Your task to perform on an android device: Go to sound settings Image 0: 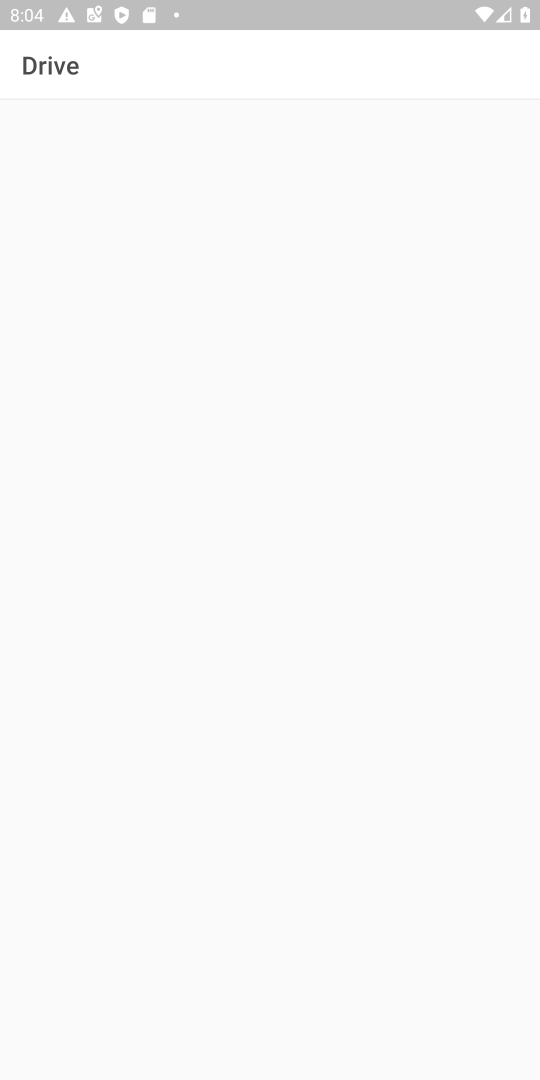
Step 0: press home button
Your task to perform on an android device: Go to sound settings Image 1: 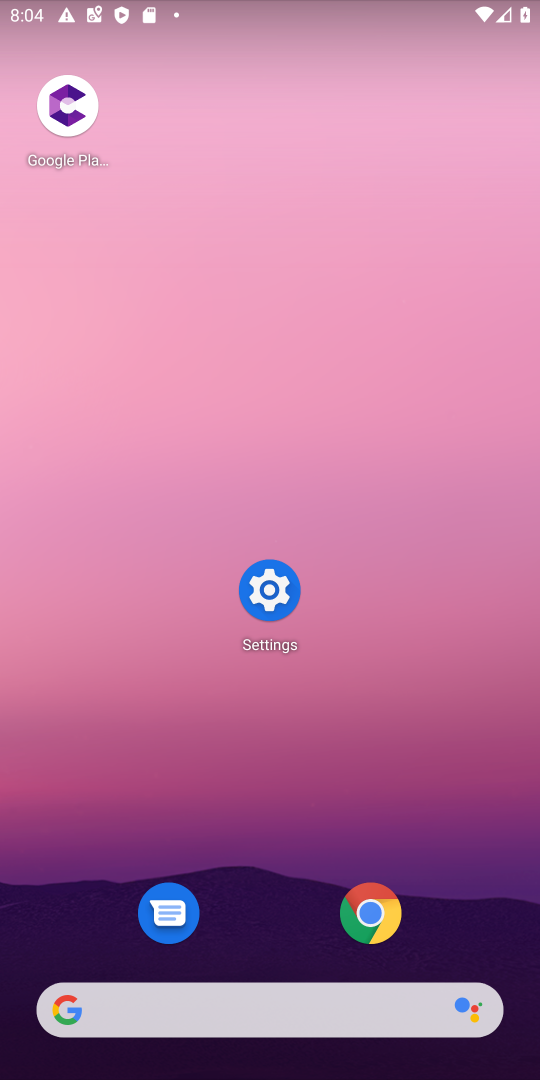
Step 1: click (270, 591)
Your task to perform on an android device: Go to sound settings Image 2: 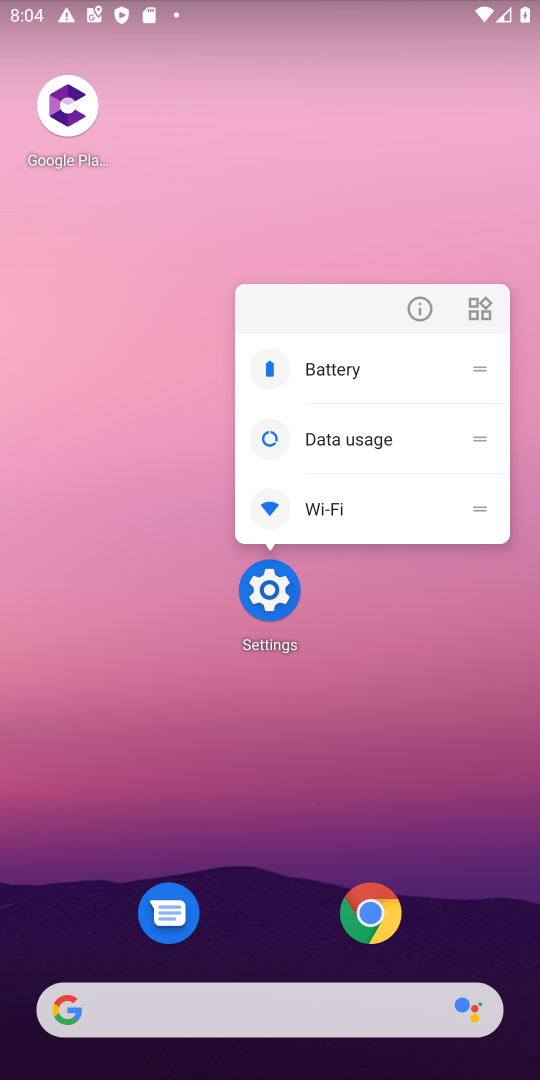
Step 2: click (270, 591)
Your task to perform on an android device: Go to sound settings Image 3: 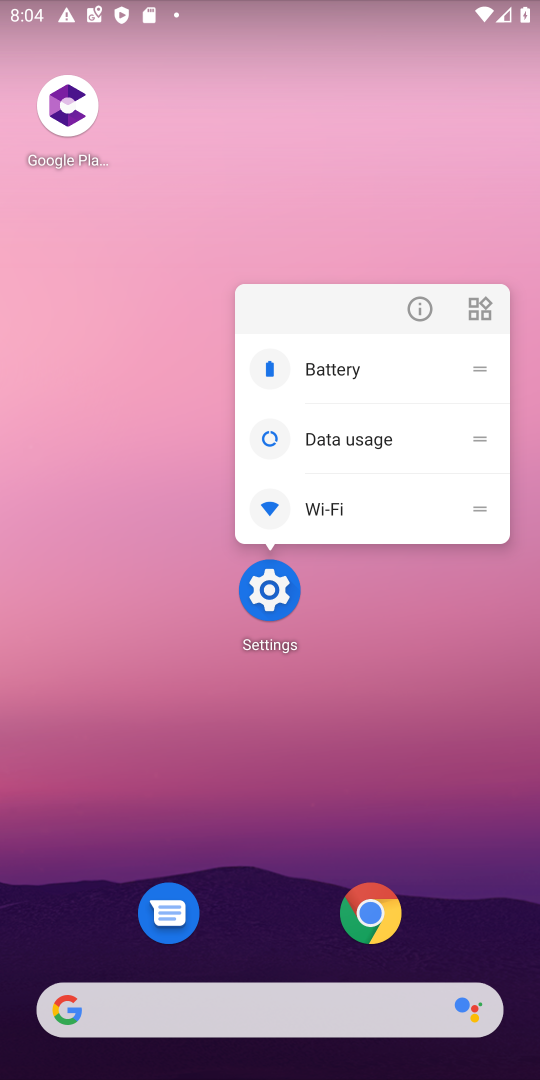
Step 3: click (270, 591)
Your task to perform on an android device: Go to sound settings Image 4: 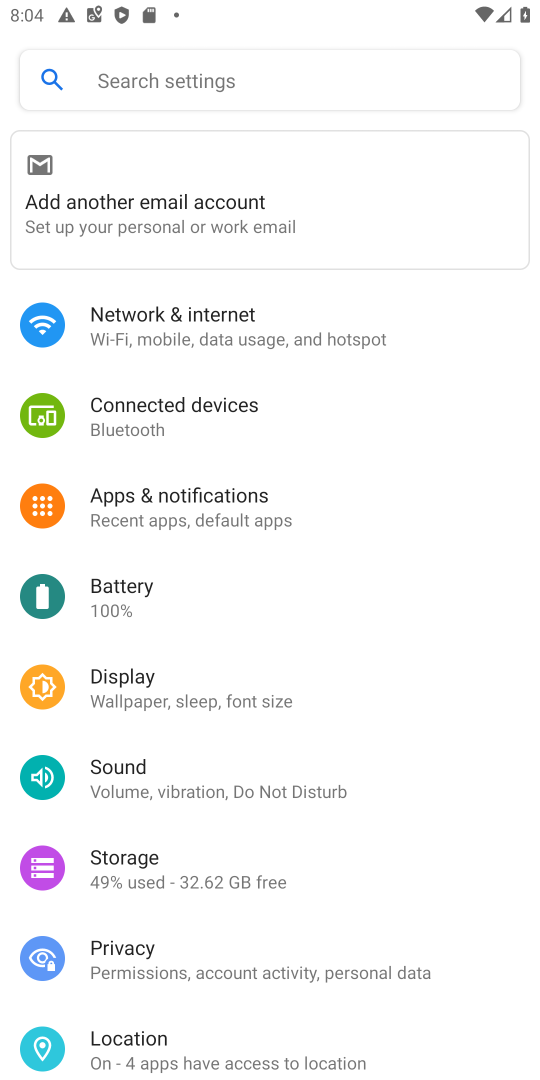
Step 4: drag from (218, 893) to (337, 731)
Your task to perform on an android device: Go to sound settings Image 5: 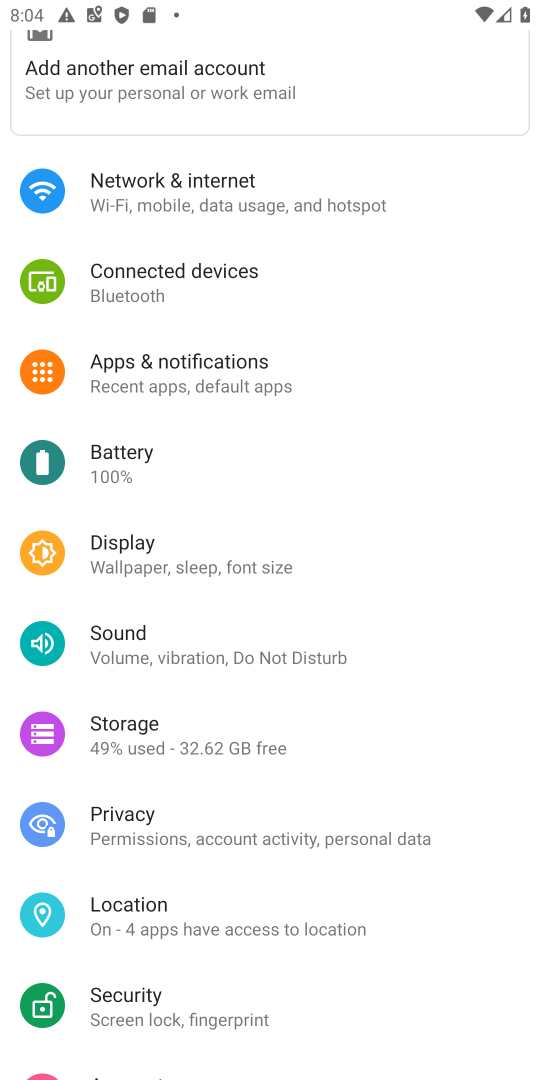
Step 5: click (243, 657)
Your task to perform on an android device: Go to sound settings Image 6: 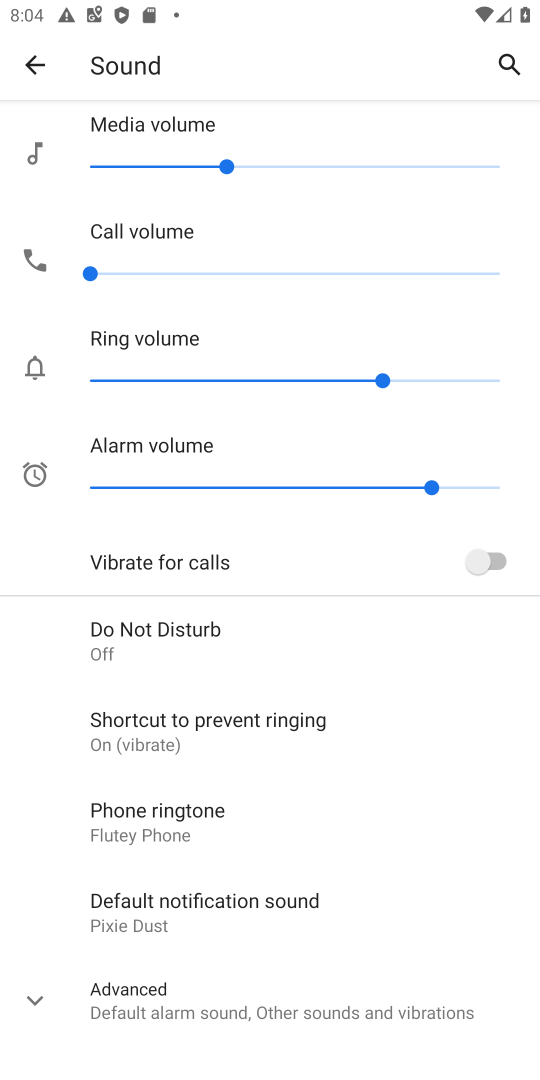
Step 6: task complete